Your task to perform on an android device: add a contact Image 0: 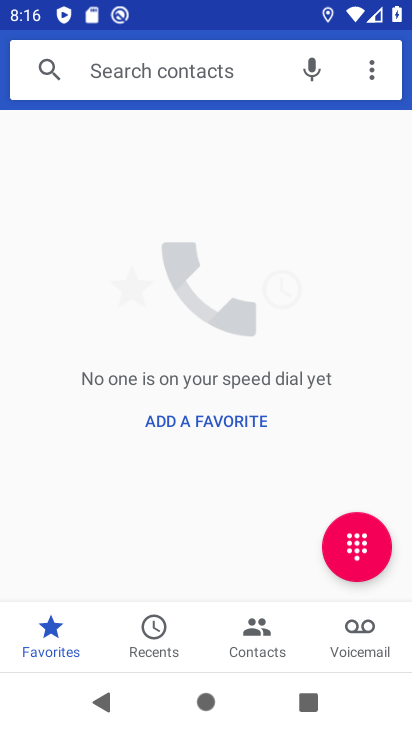
Step 0: press home button
Your task to perform on an android device: add a contact Image 1: 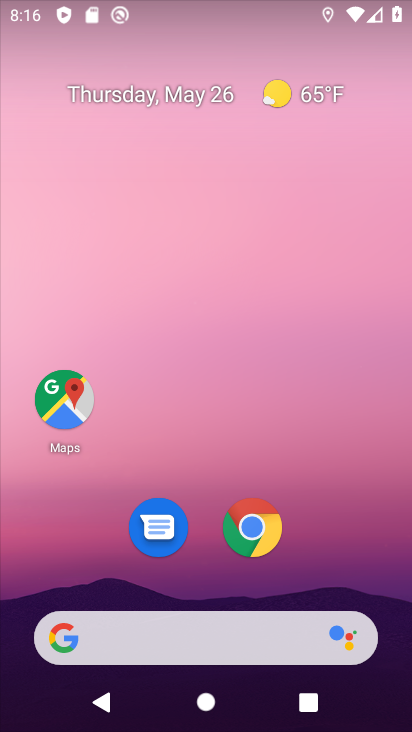
Step 1: drag from (323, 544) to (263, 123)
Your task to perform on an android device: add a contact Image 2: 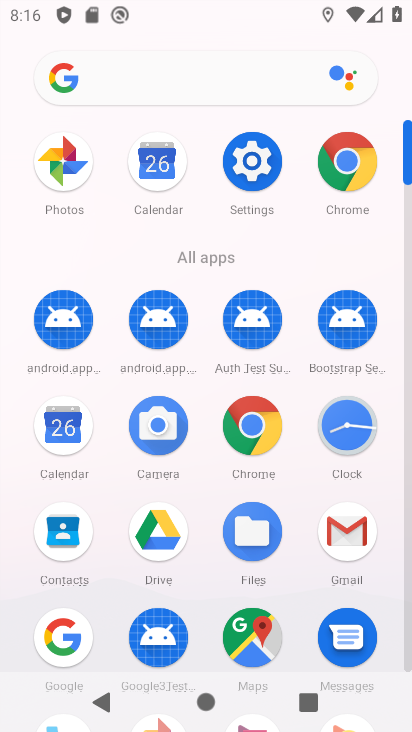
Step 2: drag from (386, 602) to (308, 186)
Your task to perform on an android device: add a contact Image 3: 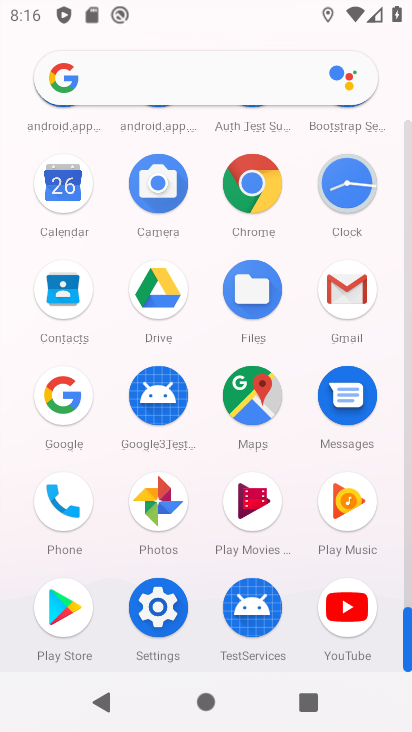
Step 3: click (61, 531)
Your task to perform on an android device: add a contact Image 4: 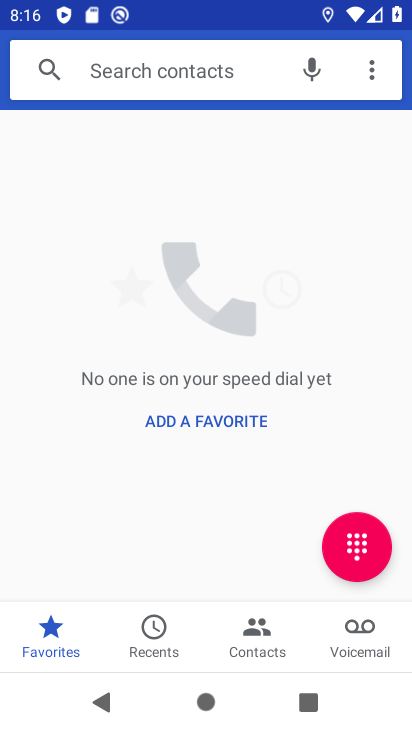
Step 4: click (249, 634)
Your task to perform on an android device: add a contact Image 5: 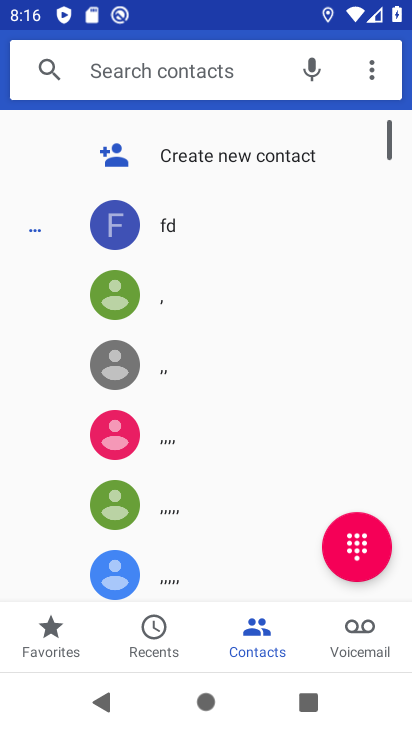
Step 5: click (203, 150)
Your task to perform on an android device: add a contact Image 6: 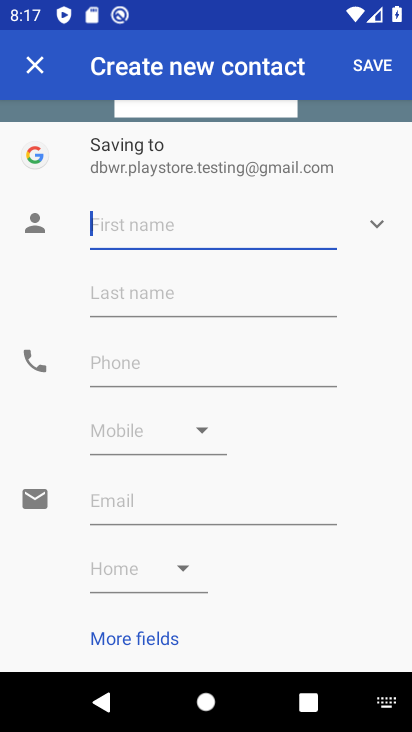
Step 6: type "tyuuu"
Your task to perform on an android device: add a contact Image 7: 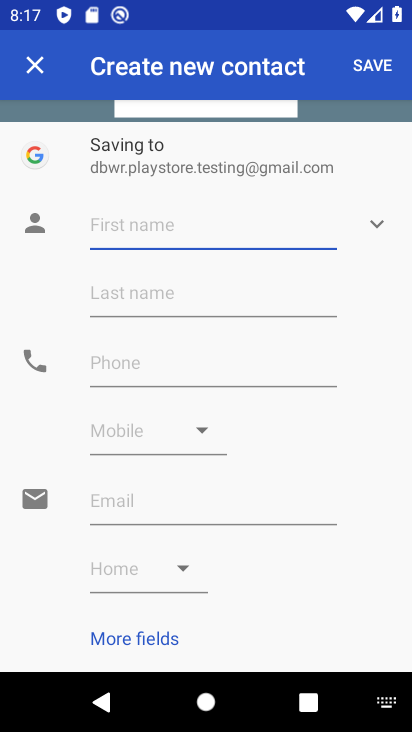
Step 7: click (178, 367)
Your task to perform on an android device: add a contact Image 8: 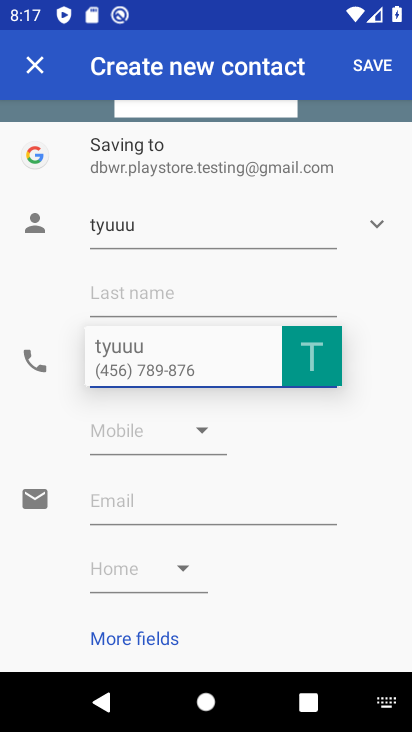
Step 8: type "56778888"
Your task to perform on an android device: add a contact Image 9: 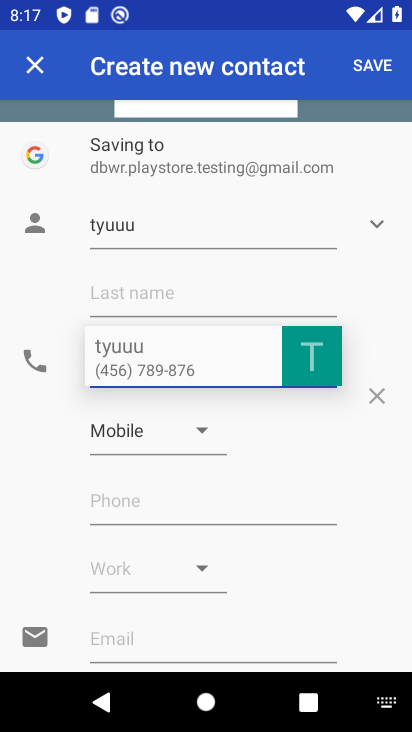
Step 9: click (194, 377)
Your task to perform on an android device: add a contact Image 10: 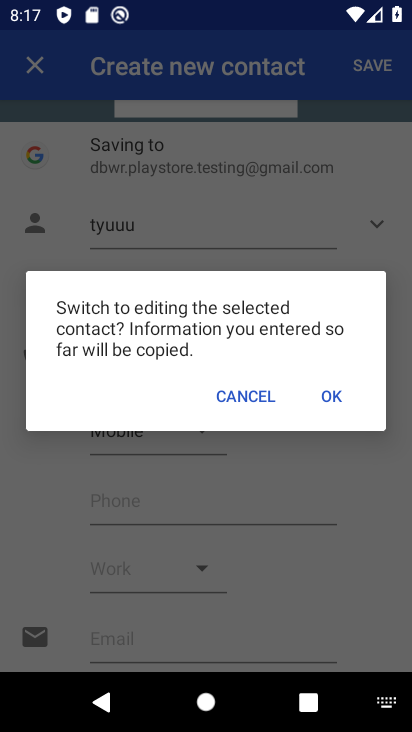
Step 10: click (343, 399)
Your task to perform on an android device: add a contact Image 11: 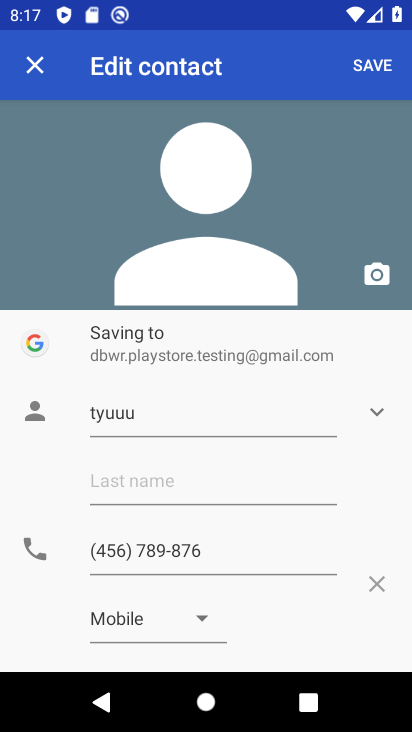
Step 11: click (394, 60)
Your task to perform on an android device: add a contact Image 12: 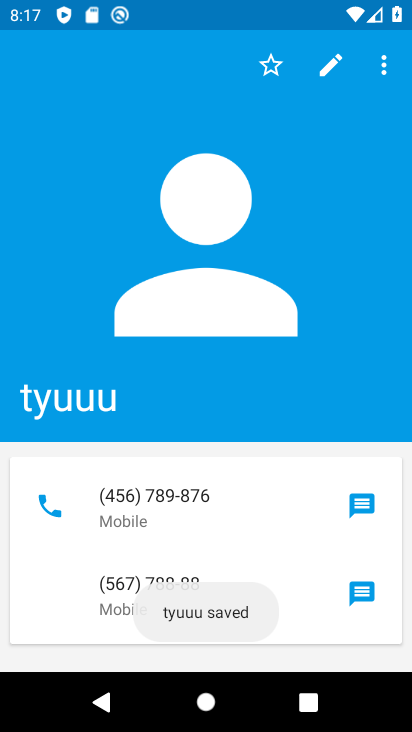
Step 12: task complete